Your task to perform on an android device: change the clock display to analog Image 0: 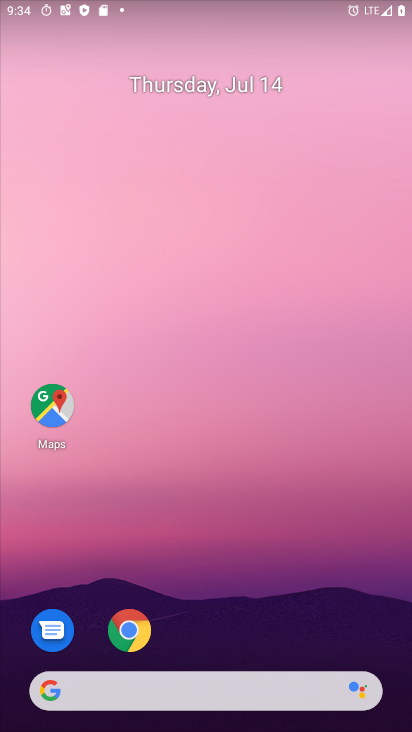
Step 0: drag from (201, 722) to (194, 243)
Your task to perform on an android device: change the clock display to analog Image 1: 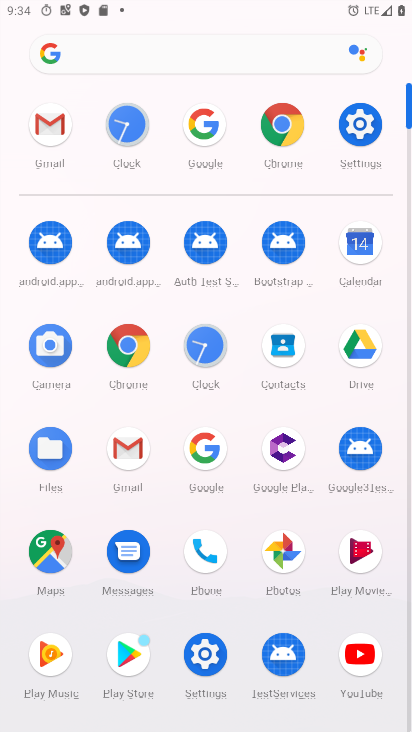
Step 1: click (203, 345)
Your task to perform on an android device: change the clock display to analog Image 2: 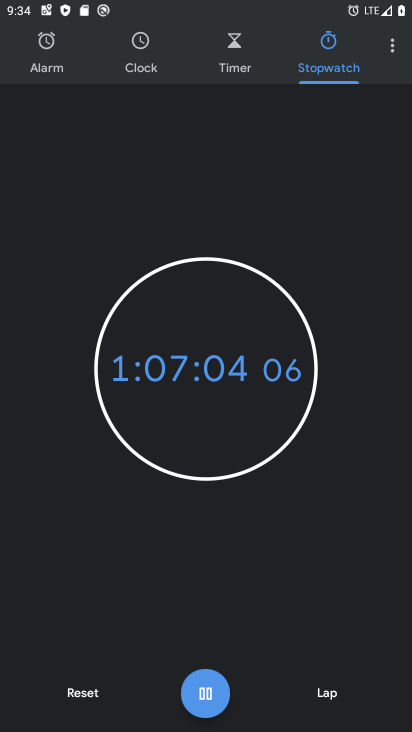
Step 2: click (396, 44)
Your task to perform on an android device: change the clock display to analog Image 3: 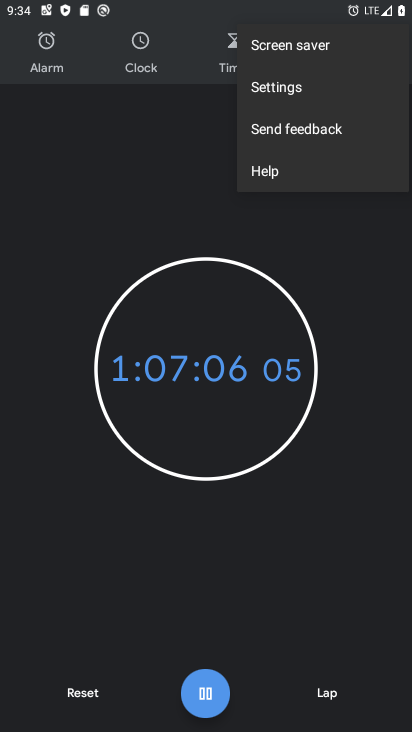
Step 3: click (290, 93)
Your task to perform on an android device: change the clock display to analog Image 4: 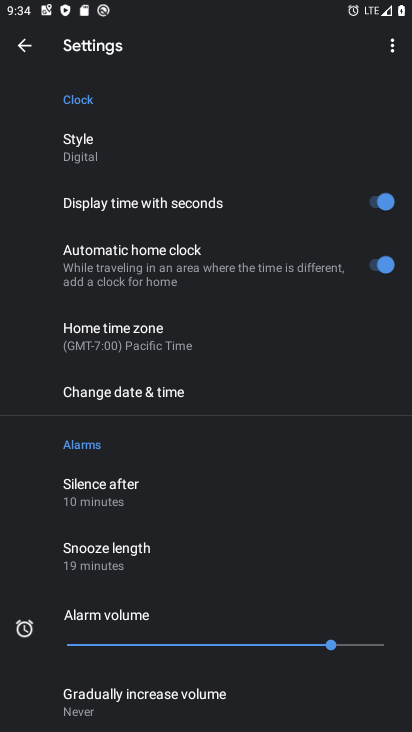
Step 4: click (99, 171)
Your task to perform on an android device: change the clock display to analog Image 5: 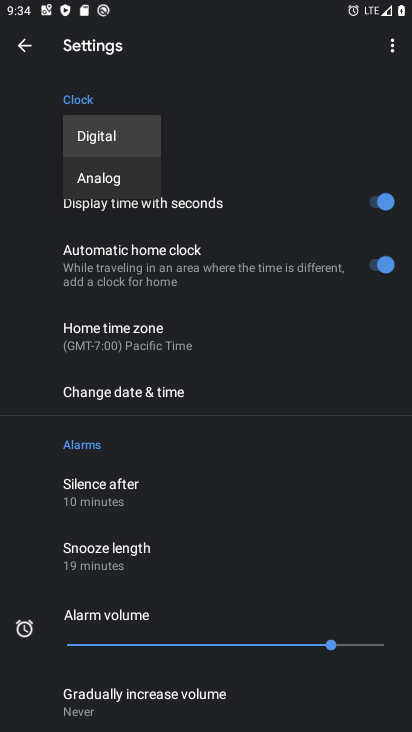
Step 5: click (102, 179)
Your task to perform on an android device: change the clock display to analog Image 6: 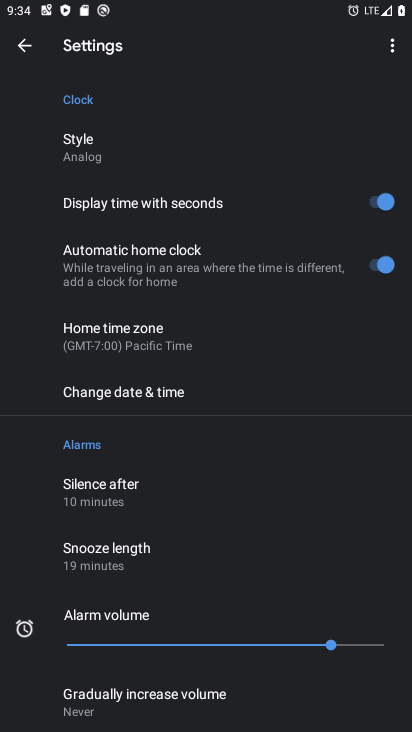
Step 6: task complete